Your task to perform on an android device: Do I have any events today? Image 0: 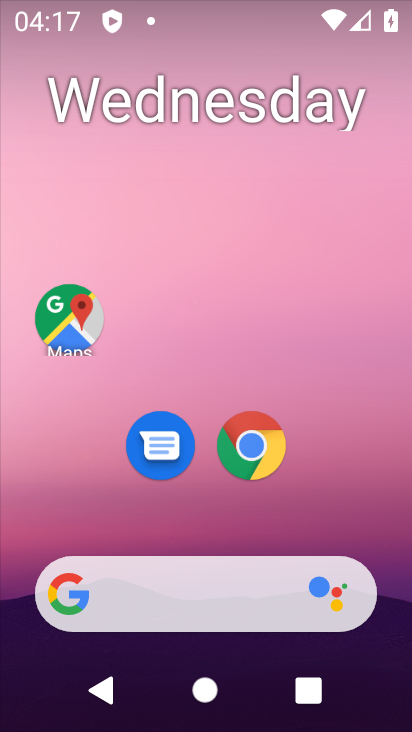
Step 0: click (267, 136)
Your task to perform on an android device: Do I have any events today? Image 1: 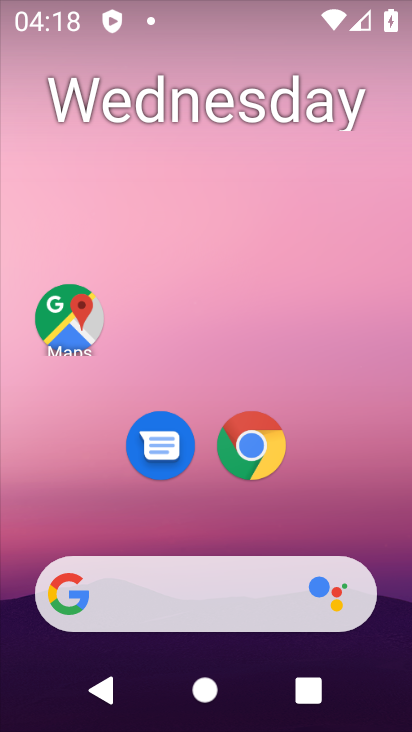
Step 1: click (237, 121)
Your task to perform on an android device: Do I have any events today? Image 2: 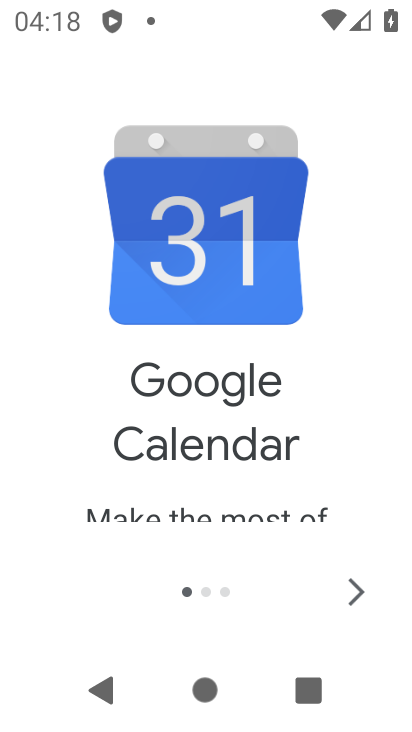
Step 2: click (353, 595)
Your task to perform on an android device: Do I have any events today? Image 3: 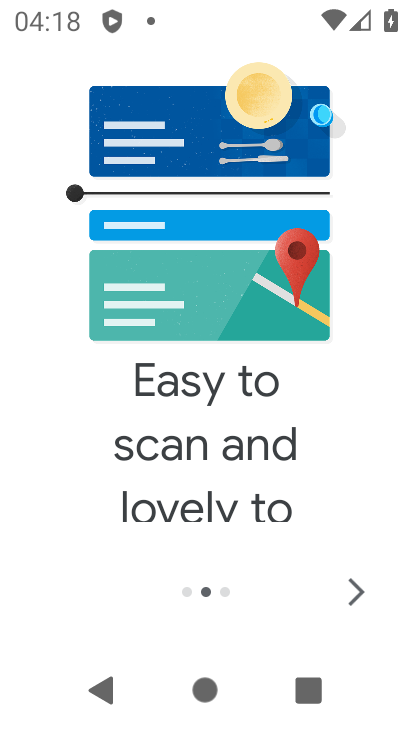
Step 3: click (353, 595)
Your task to perform on an android device: Do I have any events today? Image 4: 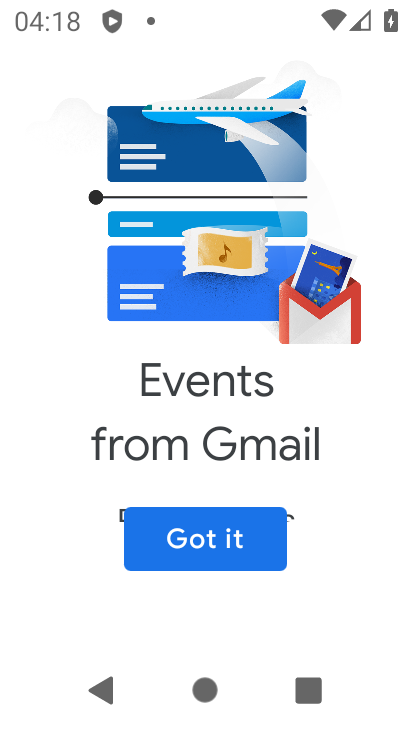
Step 4: click (246, 554)
Your task to perform on an android device: Do I have any events today? Image 5: 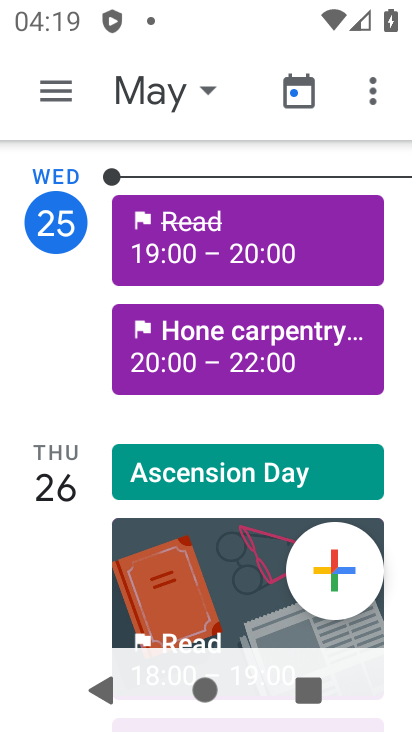
Step 5: task complete